Your task to perform on an android device: Check the news Image 0: 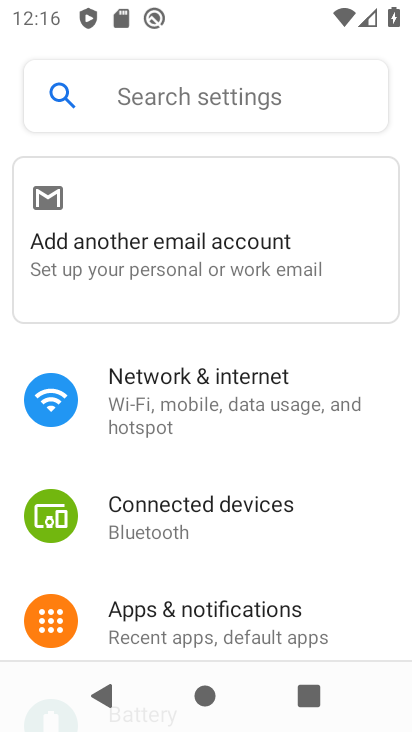
Step 0: press home button
Your task to perform on an android device: Check the news Image 1: 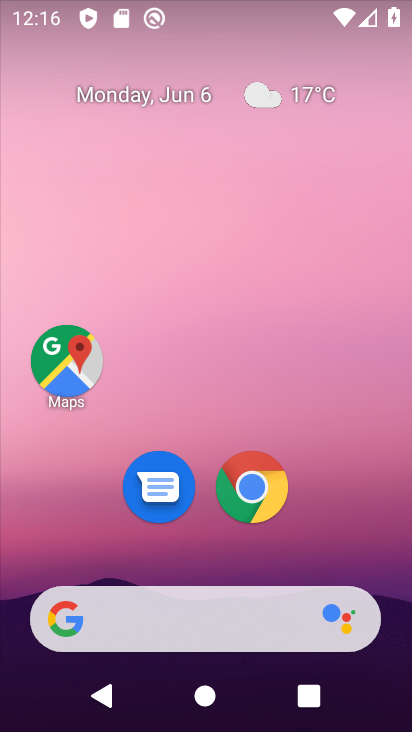
Step 1: task complete